Your task to perform on an android device: Toggle the flashlight Image 0: 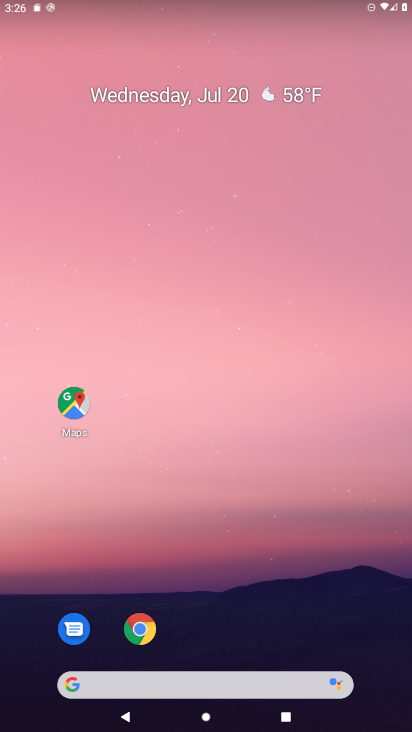
Step 0: drag from (271, 95) to (266, 580)
Your task to perform on an android device: Toggle the flashlight Image 1: 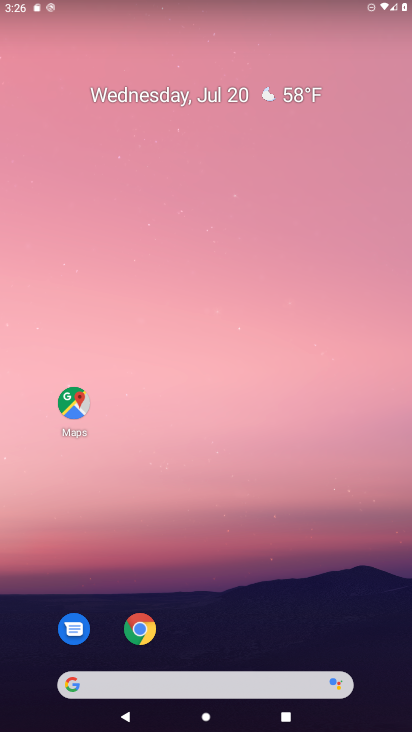
Step 1: task complete